Your task to perform on an android device: Open battery settings Image 0: 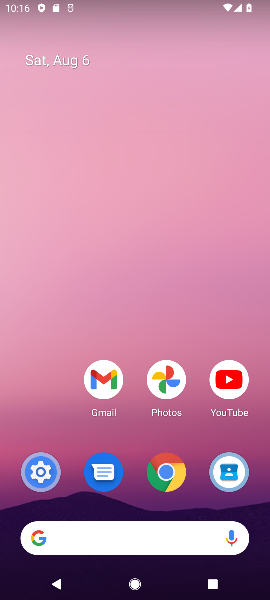
Step 0: drag from (86, 85) to (180, 72)
Your task to perform on an android device: Open battery settings Image 1: 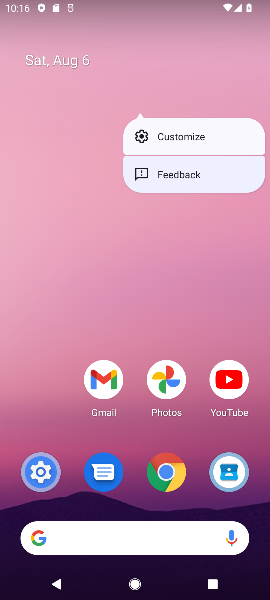
Step 1: drag from (155, 456) to (69, 156)
Your task to perform on an android device: Open battery settings Image 2: 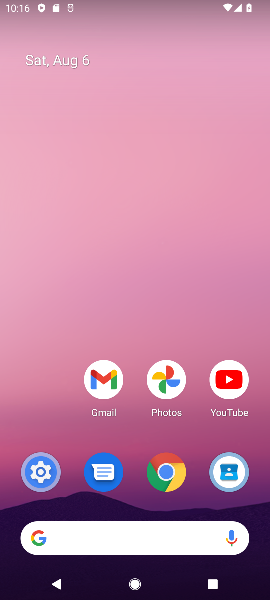
Step 2: drag from (135, 423) to (142, 95)
Your task to perform on an android device: Open battery settings Image 3: 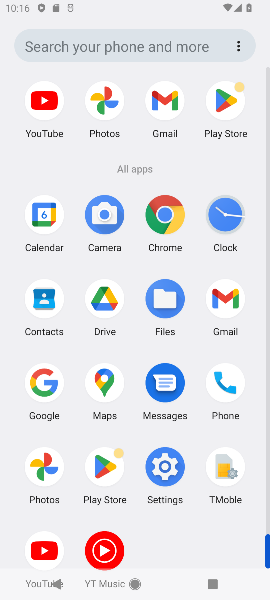
Step 3: drag from (145, 374) to (100, 148)
Your task to perform on an android device: Open battery settings Image 4: 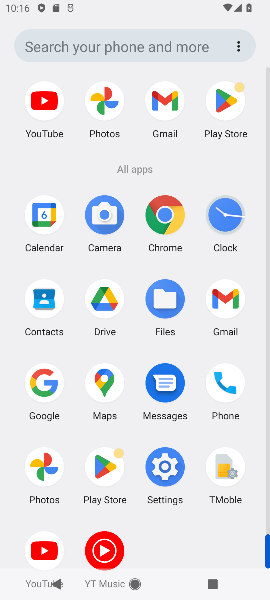
Step 4: click (163, 475)
Your task to perform on an android device: Open battery settings Image 5: 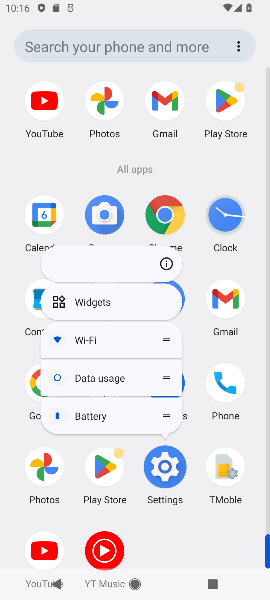
Step 5: click (163, 475)
Your task to perform on an android device: Open battery settings Image 6: 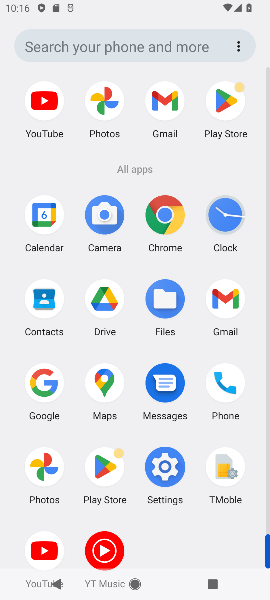
Step 6: click (163, 475)
Your task to perform on an android device: Open battery settings Image 7: 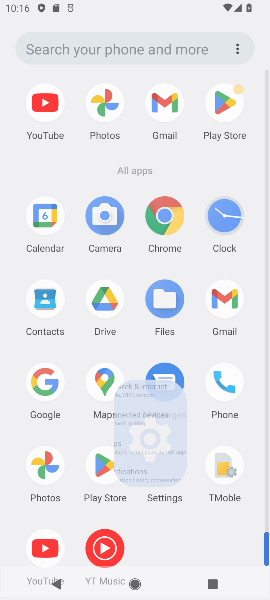
Step 7: click (161, 476)
Your task to perform on an android device: Open battery settings Image 8: 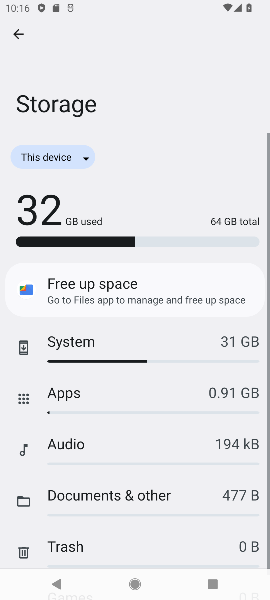
Step 8: click (16, 22)
Your task to perform on an android device: Open battery settings Image 9: 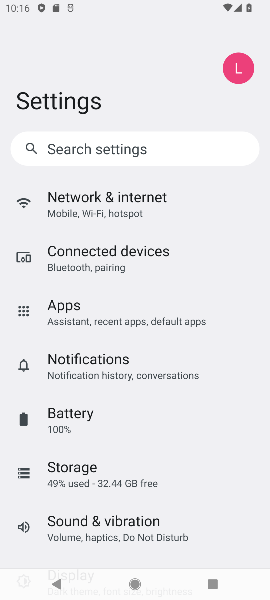
Step 9: click (69, 408)
Your task to perform on an android device: Open battery settings Image 10: 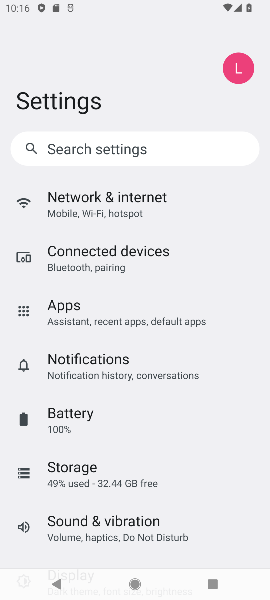
Step 10: click (67, 409)
Your task to perform on an android device: Open battery settings Image 11: 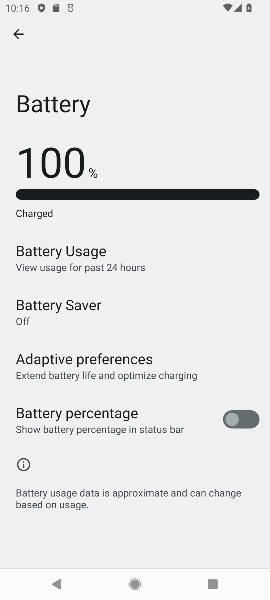
Step 11: task complete